Your task to perform on an android device: Play the last video I watched on Youtube Image 0: 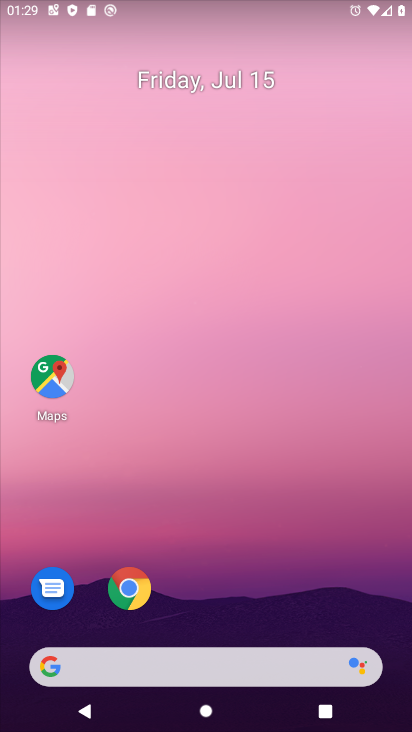
Step 0: drag from (388, 648) to (337, 91)
Your task to perform on an android device: Play the last video I watched on Youtube Image 1: 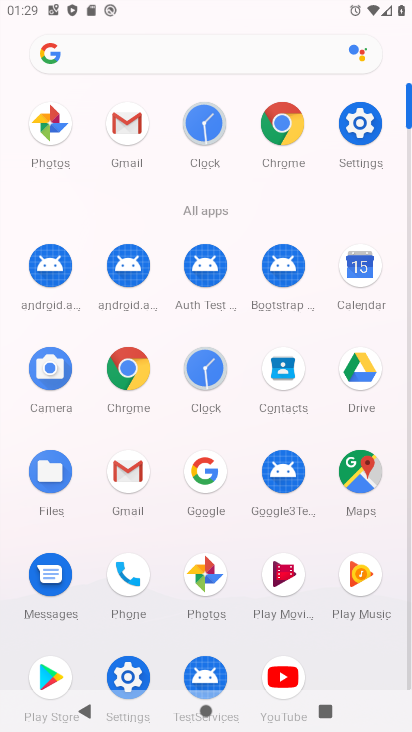
Step 1: click (281, 677)
Your task to perform on an android device: Play the last video I watched on Youtube Image 2: 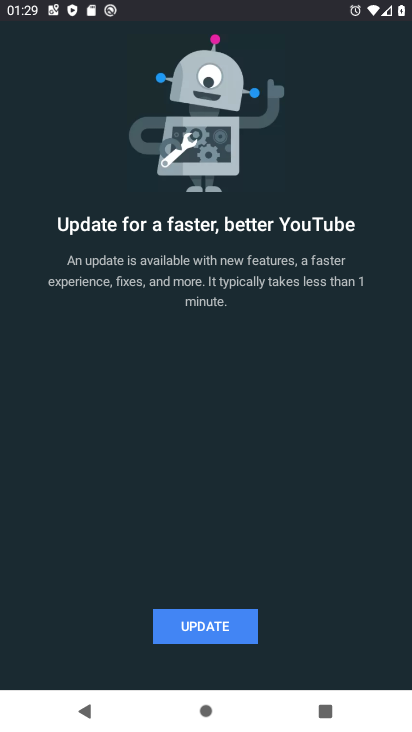
Step 2: click (197, 622)
Your task to perform on an android device: Play the last video I watched on Youtube Image 3: 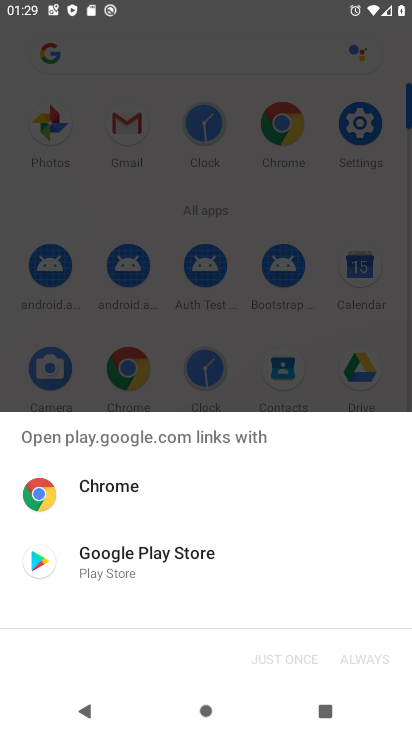
Step 3: click (92, 550)
Your task to perform on an android device: Play the last video I watched on Youtube Image 4: 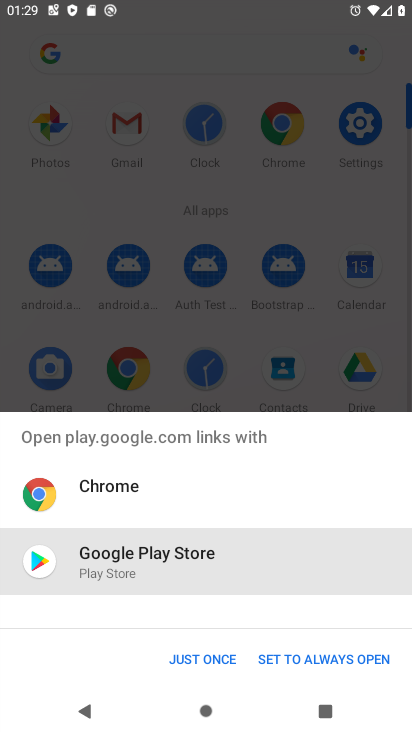
Step 4: click (199, 658)
Your task to perform on an android device: Play the last video I watched on Youtube Image 5: 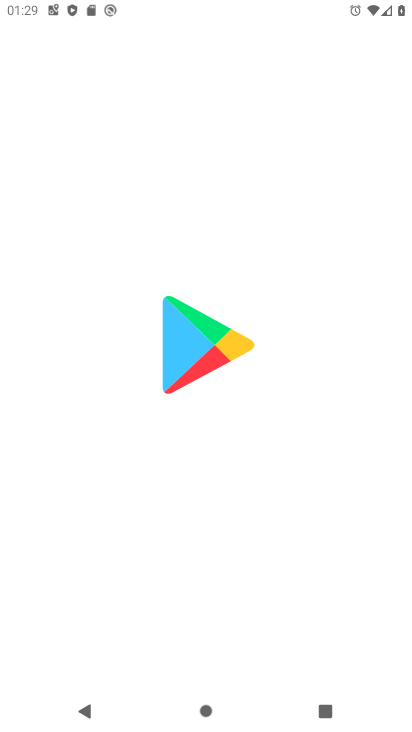
Step 5: click (199, 658)
Your task to perform on an android device: Play the last video I watched on Youtube Image 6: 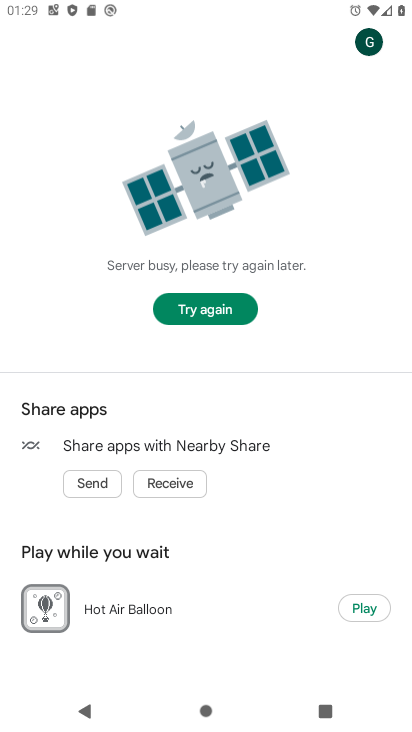
Step 6: click (209, 311)
Your task to perform on an android device: Play the last video I watched on Youtube Image 7: 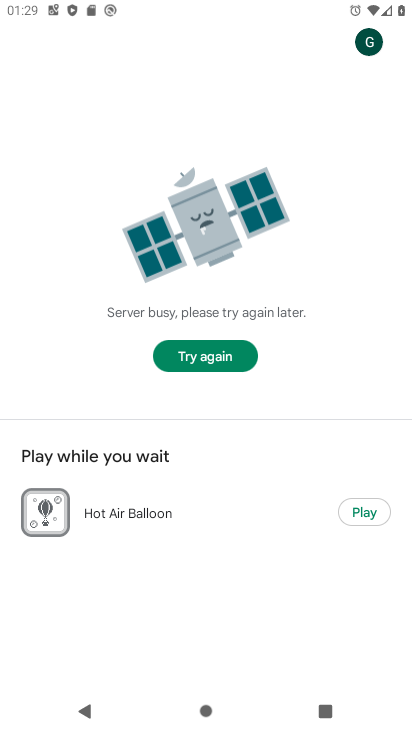
Step 7: click (210, 365)
Your task to perform on an android device: Play the last video I watched on Youtube Image 8: 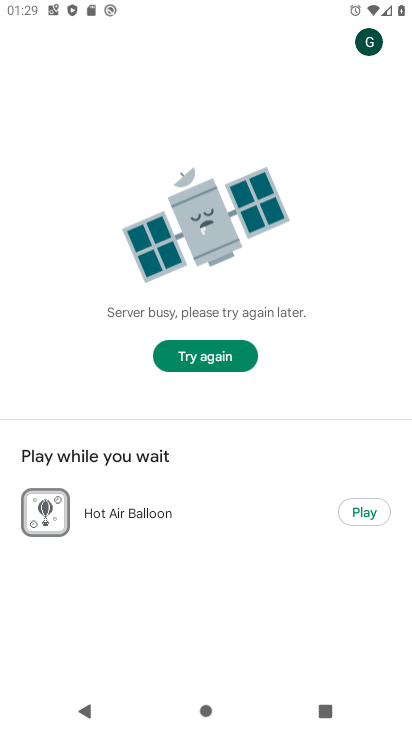
Step 8: click (210, 365)
Your task to perform on an android device: Play the last video I watched on Youtube Image 9: 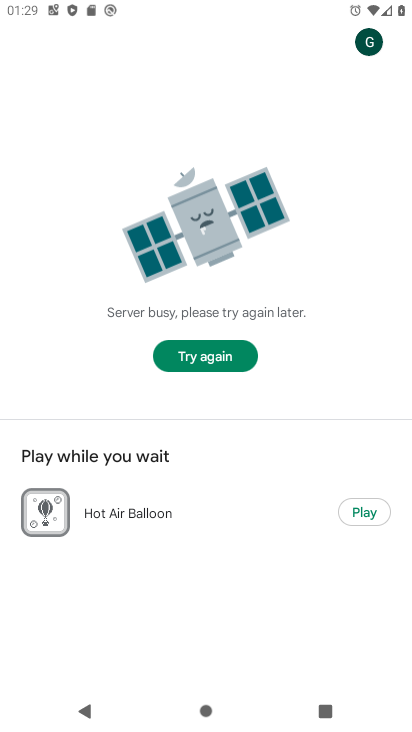
Step 9: task complete